Your task to perform on an android device: open app "ColorNote Notepad Notes" (install if not already installed) Image 0: 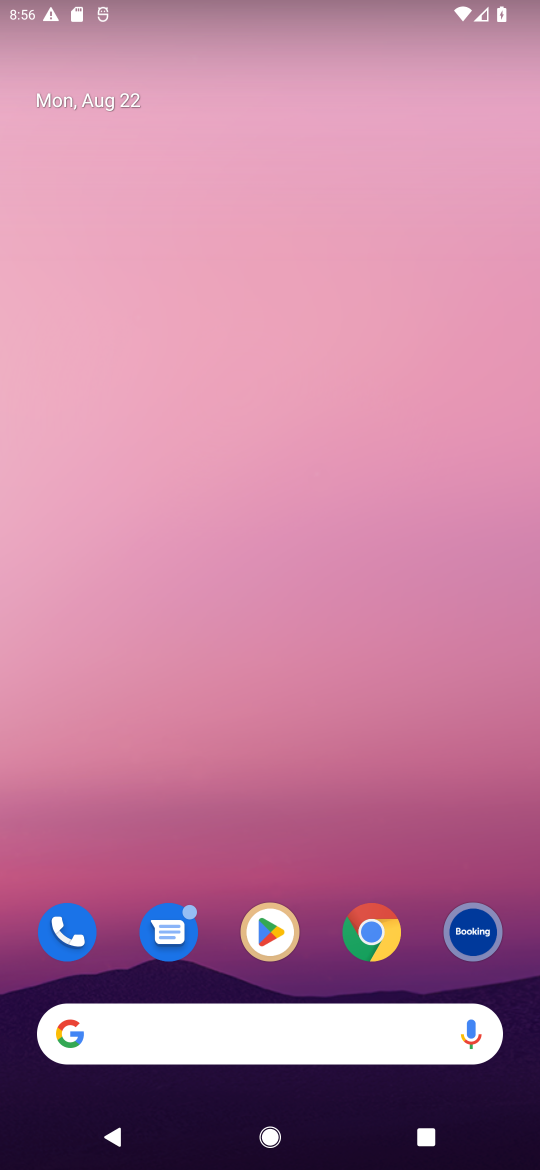
Step 0: click (295, 922)
Your task to perform on an android device: open app "ColorNote Notepad Notes" (install if not already installed) Image 1: 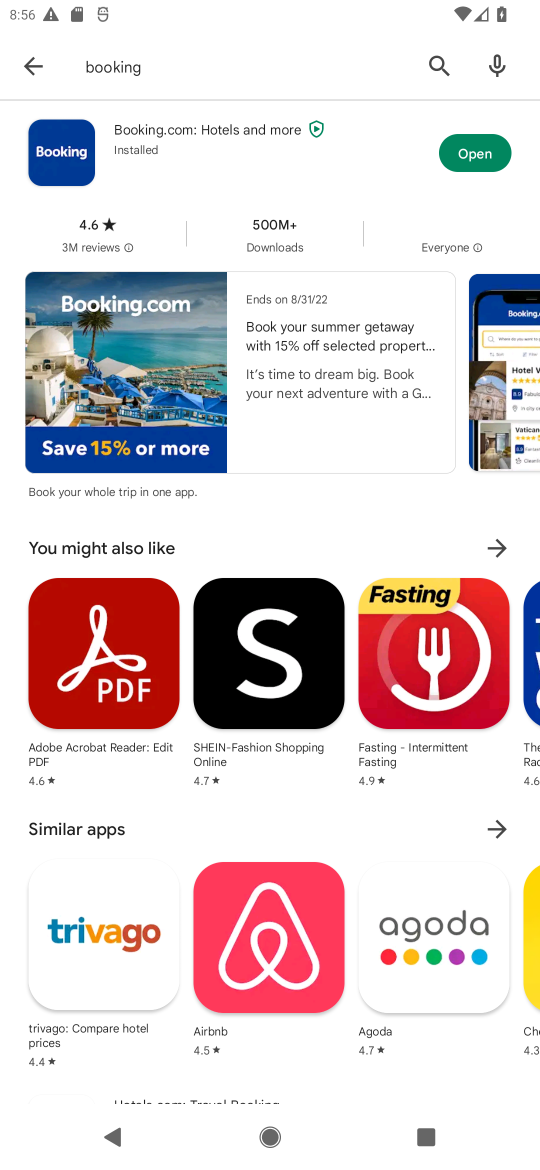
Step 1: click (437, 62)
Your task to perform on an android device: open app "ColorNote Notepad Notes" (install if not already installed) Image 2: 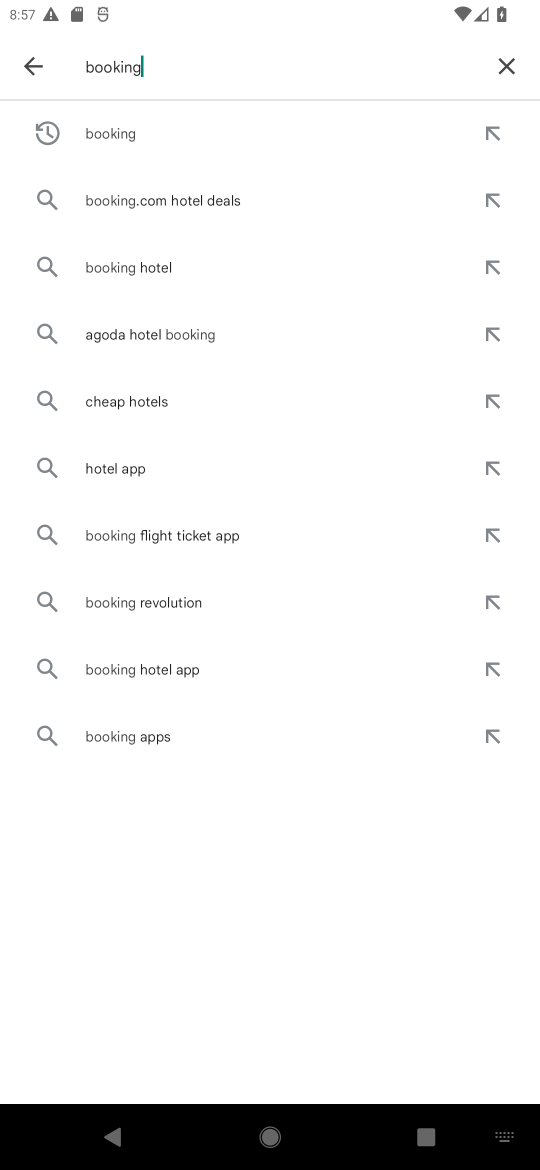
Step 2: click (515, 62)
Your task to perform on an android device: open app "ColorNote Notepad Notes" (install if not already installed) Image 3: 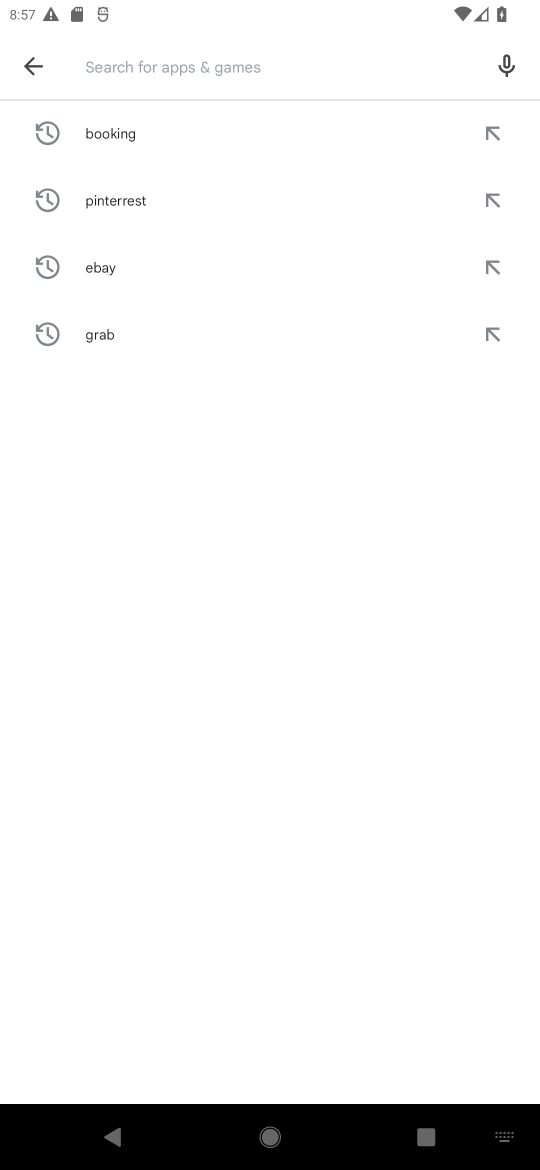
Step 3: type "colornote"
Your task to perform on an android device: open app "ColorNote Notepad Notes" (install if not already installed) Image 4: 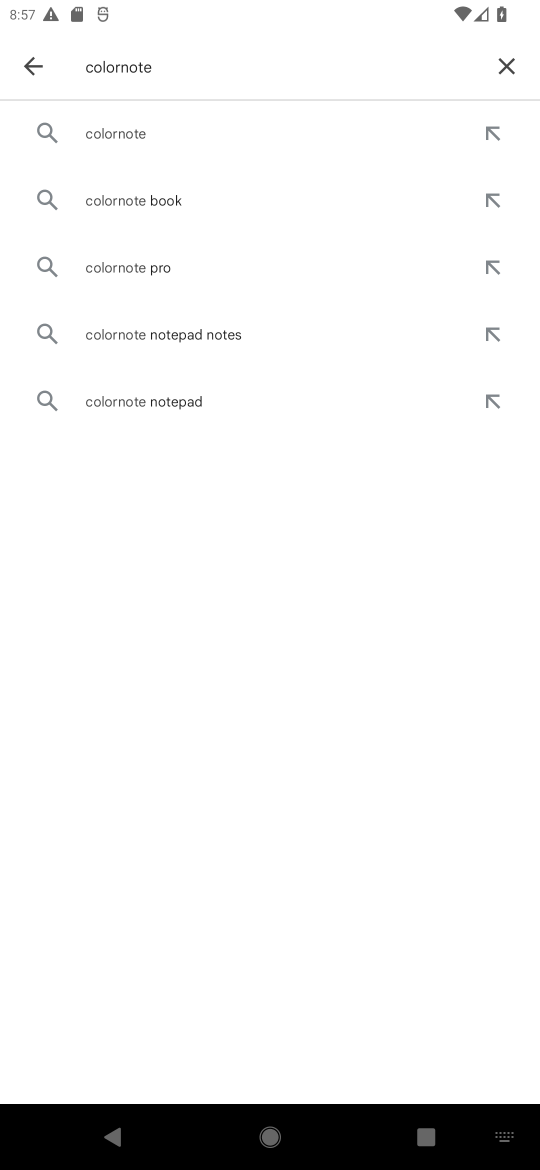
Step 4: click (157, 142)
Your task to perform on an android device: open app "ColorNote Notepad Notes" (install if not already installed) Image 5: 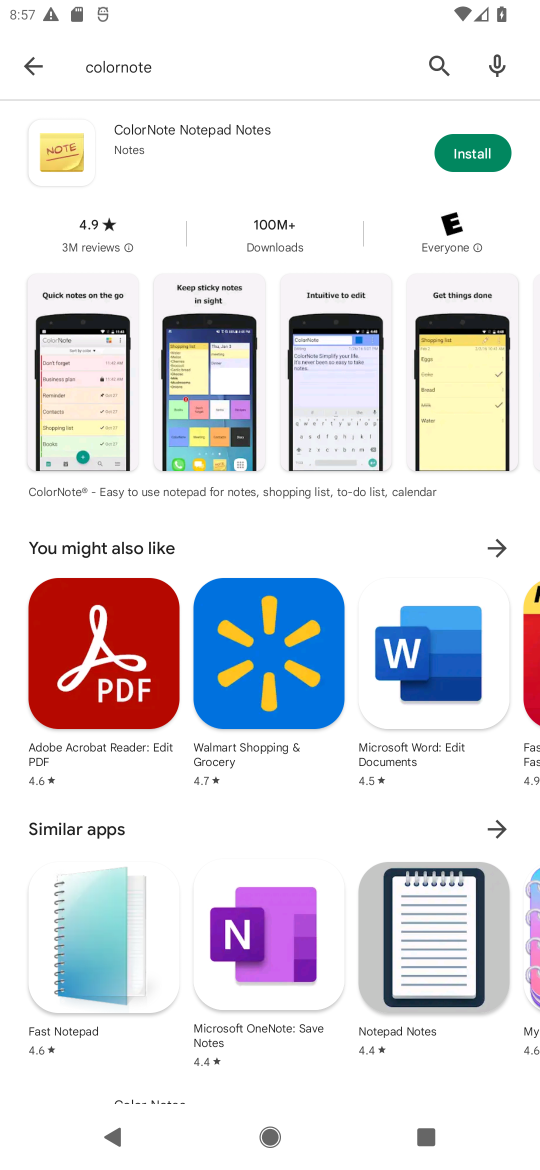
Step 5: click (425, 144)
Your task to perform on an android device: open app "ColorNote Notepad Notes" (install if not already installed) Image 6: 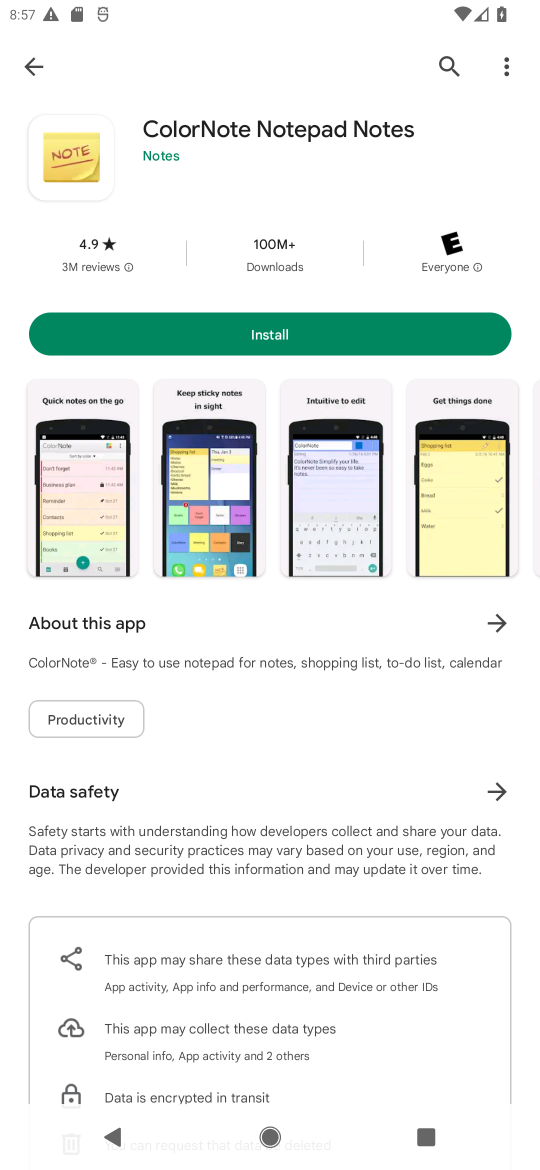
Step 6: task complete